Your task to perform on an android device: Turn off the flashlight Image 0: 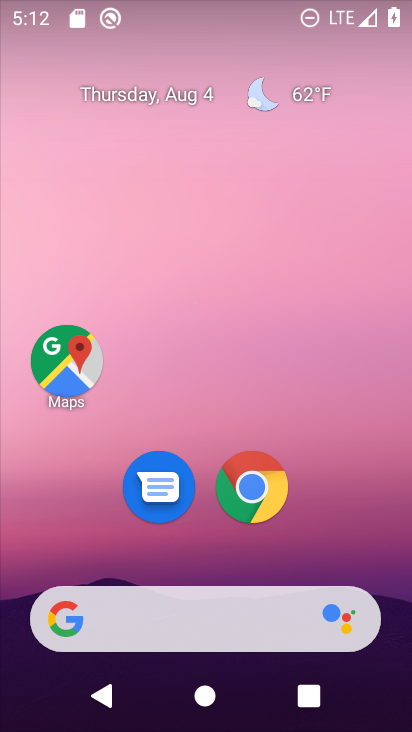
Step 0: drag from (82, 509) to (129, 33)
Your task to perform on an android device: Turn off the flashlight Image 1: 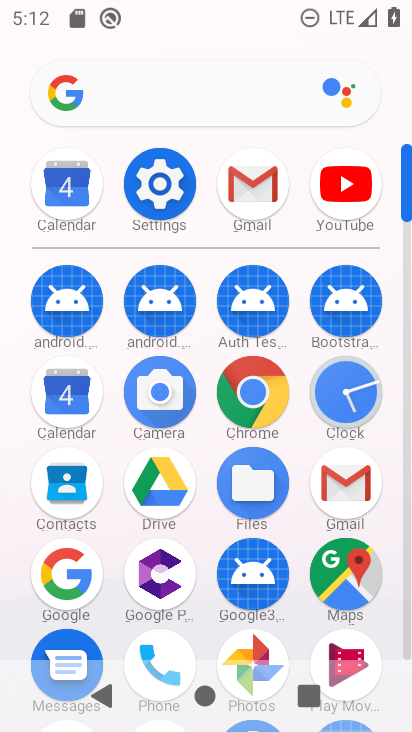
Step 1: click (154, 188)
Your task to perform on an android device: Turn off the flashlight Image 2: 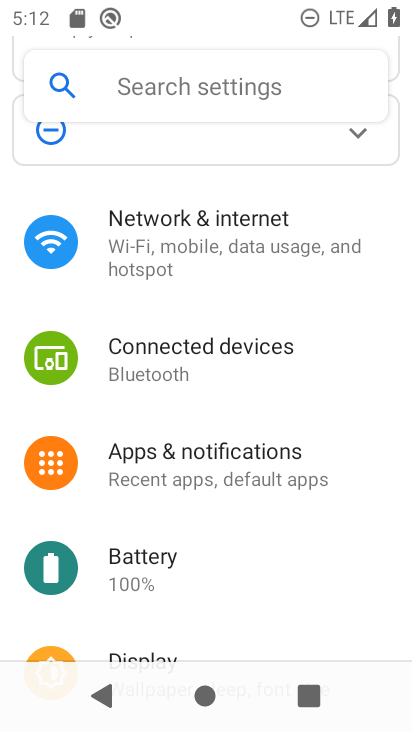
Step 2: click (194, 83)
Your task to perform on an android device: Turn off the flashlight Image 3: 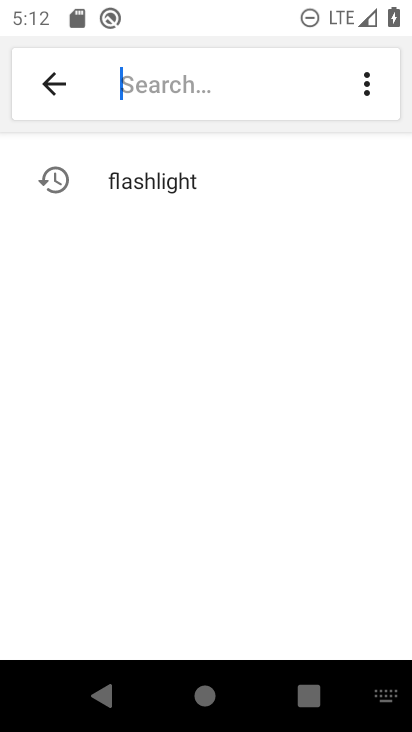
Step 3: type "flashlight"
Your task to perform on an android device: Turn off the flashlight Image 4: 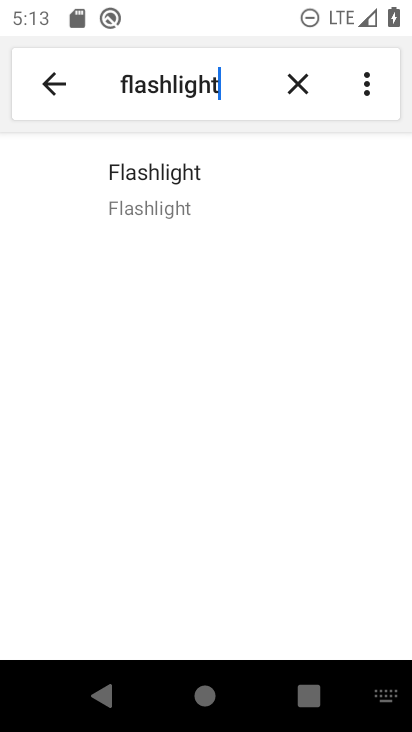
Step 4: click (175, 174)
Your task to perform on an android device: Turn off the flashlight Image 5: 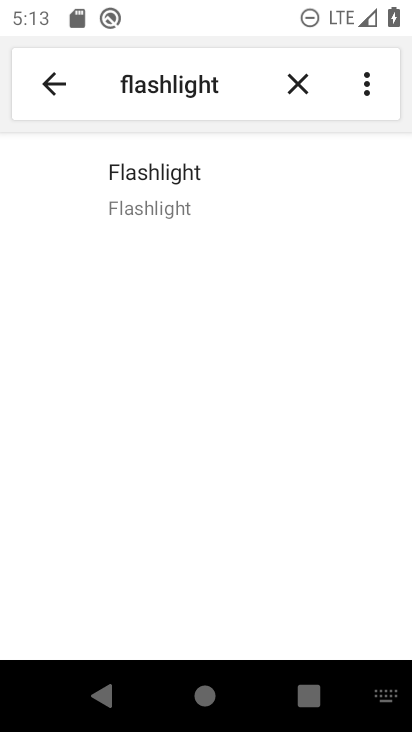
Step 5: task complete